Your task to perform on an android device: toggle sleep mode Image 0: 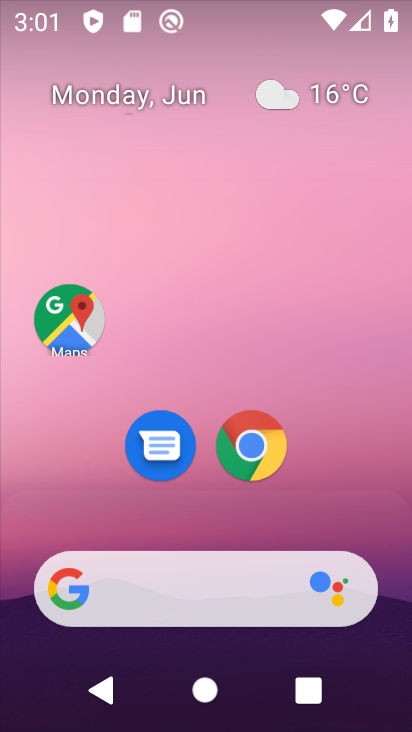
Step 0: drag from (198, 528) to (242, 301)
Your task to perform on an android device: toggle sleep mode Image 1: 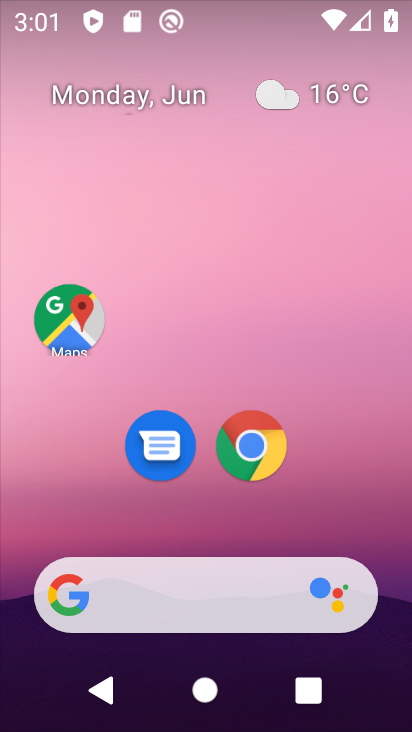
Step 1: drag from (280, 305) to (284, 264)
Your task to perform on an android device: toggle sleep mode Image 2: 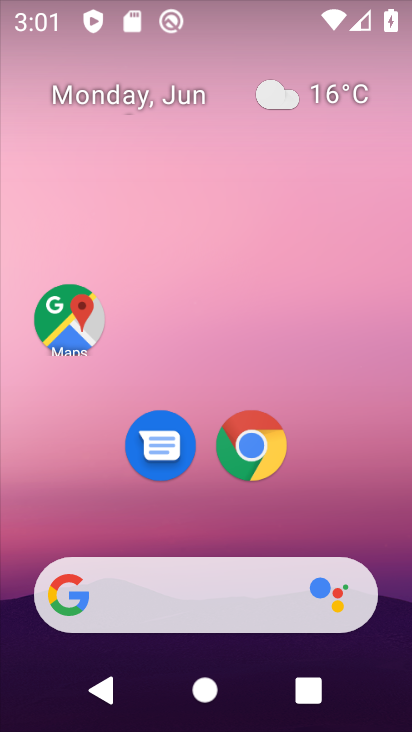
Step 2: drag from (227, 609) to (275, 239)
Your task to perform on an android device: toggle sleep mode Image 3: 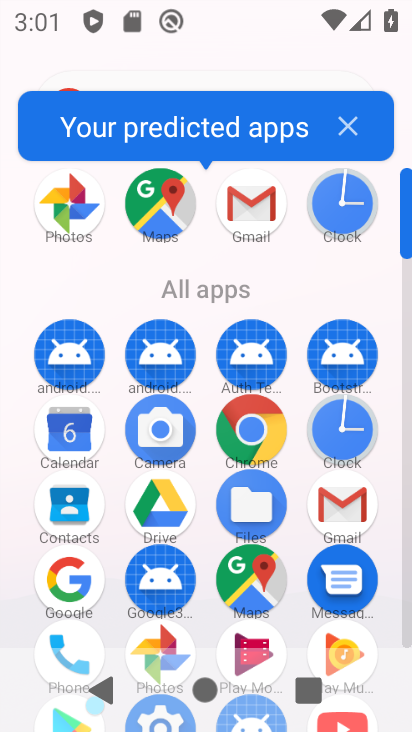
Step 3: drag from (228, 567) to (245, 286)
Your task to perform on an android device: toggle sleep mode Image 4: 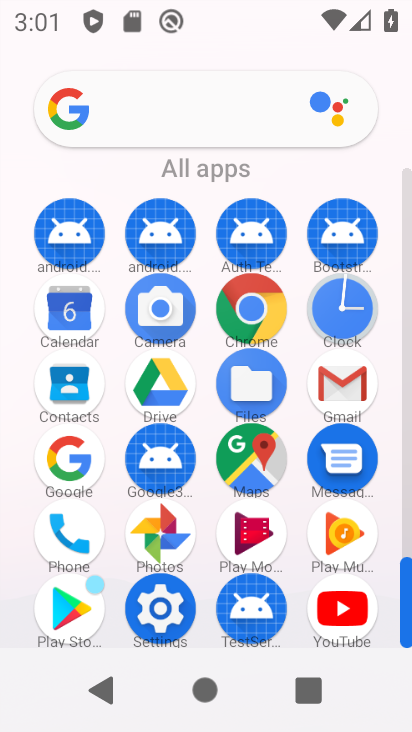
Step 4: click (151, 605)
Your task to perform on an android device: toggle sleep mode Image 5: 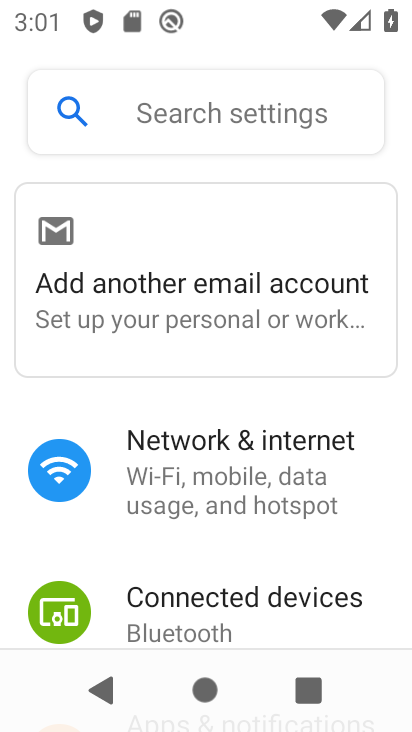
Step 5: task complete